Your task to perform on an android device: delete browsing data in the chrome app Image 0: 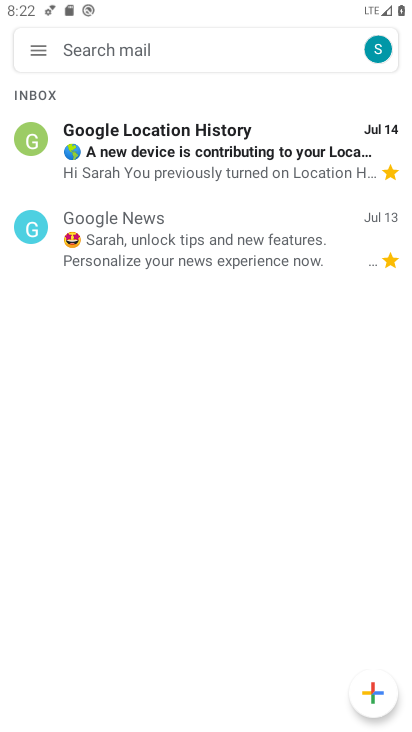
Step 0: press home button
Your task to perform on an android device: delete browsing data in the chrome app Image 1: 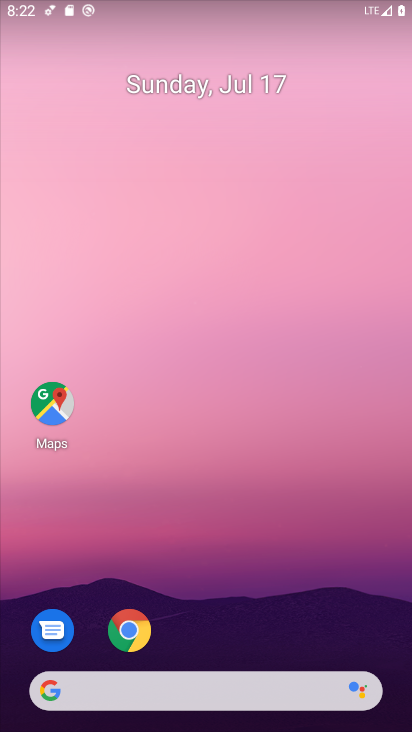
Step 1: drag from (209, 636) to (279, 44)
Your task to perform on an android device: delete browsing data in the chrome app Image 2: 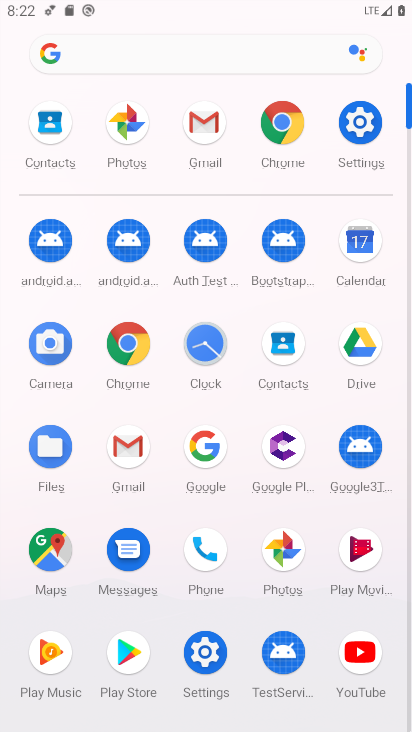
Step 2: click (107, 357)
Your task to perform on an android device: delete browsing data in the chrome app Image 3: 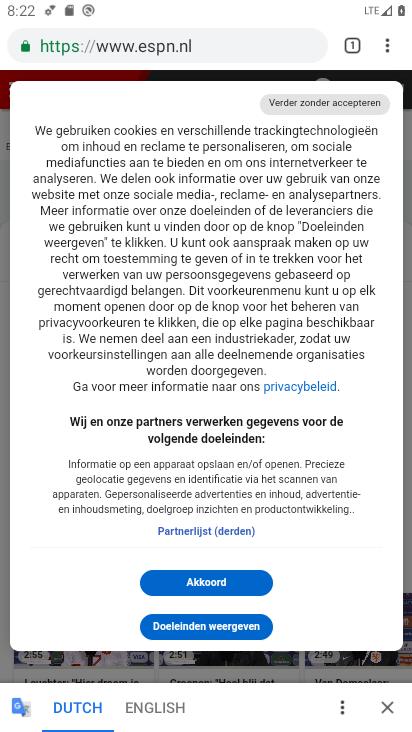
Step 3: click (391, 38)
Your task to perform on an android device: delete browsing data in the chrome app Image 4: 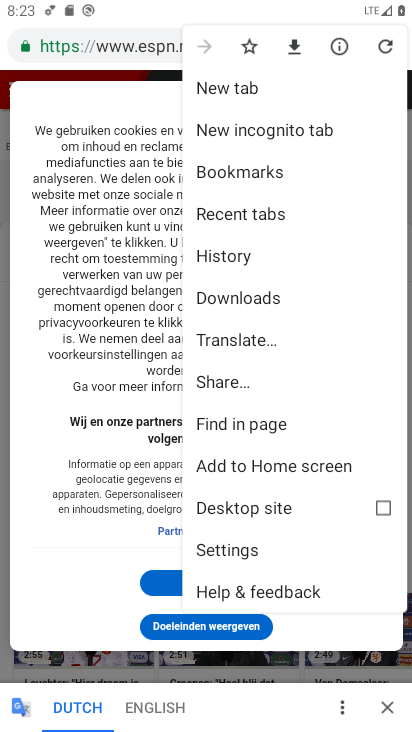
Step 4: click (237, 251)
Your task to perform on an android device: delete browsing data in the chrome app Image 5: 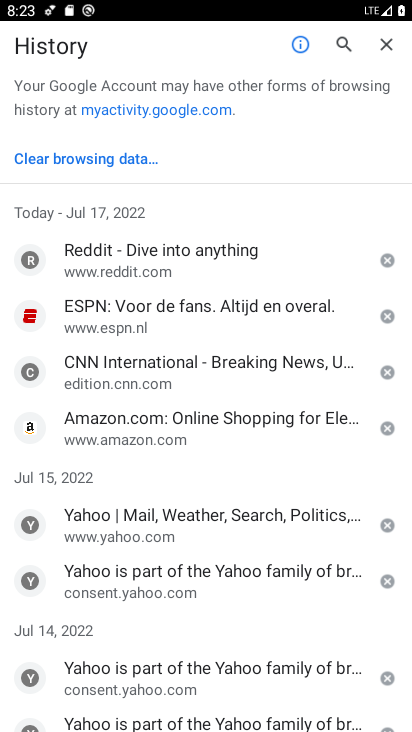
Step 5: click (97, 156)
Your task to perform on an android device: delete browsing data in the chrome app Image 6: 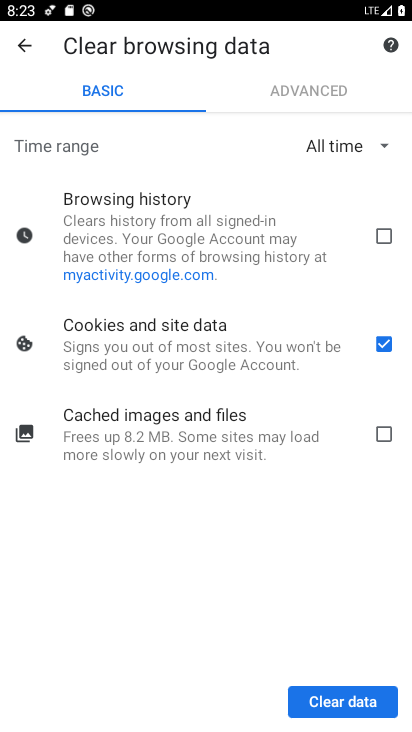
Step 6: click (379, 437)
Your task to perform on an android device: delete browsing data in the chrome app Image 7: 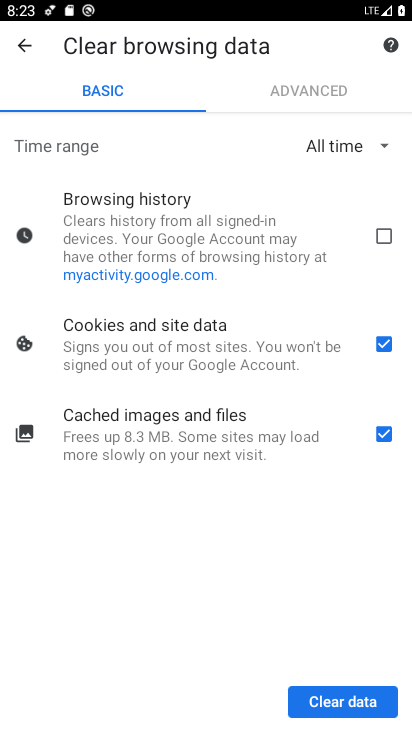
Step 7: click (381, 232)
Your task to perform on an android device: delete browsing data in the chrome app Image 8: 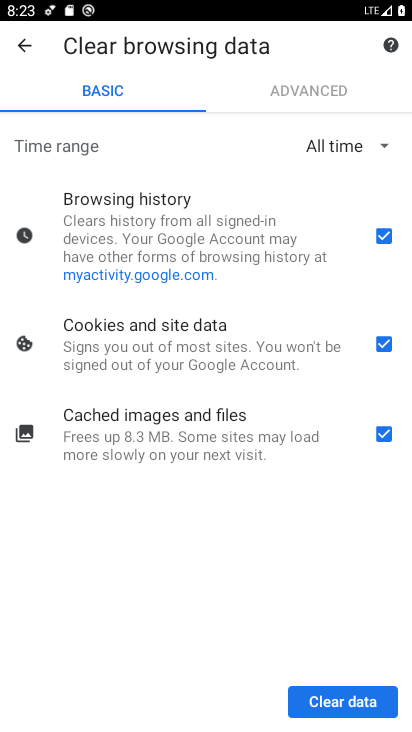
Step 8: click (344, 695)
Your task to perform on an android device: delete browsing data in the chrome app Image 9: 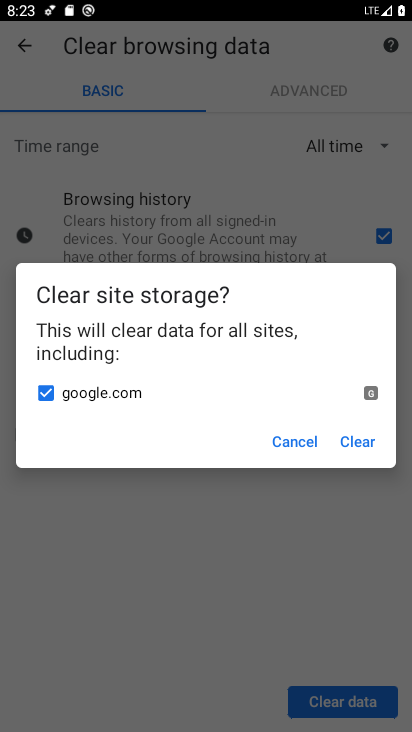
Step 9: click (370, 439)
Your task to perform on an android device: delete browsing data in the chrome app Image 10: 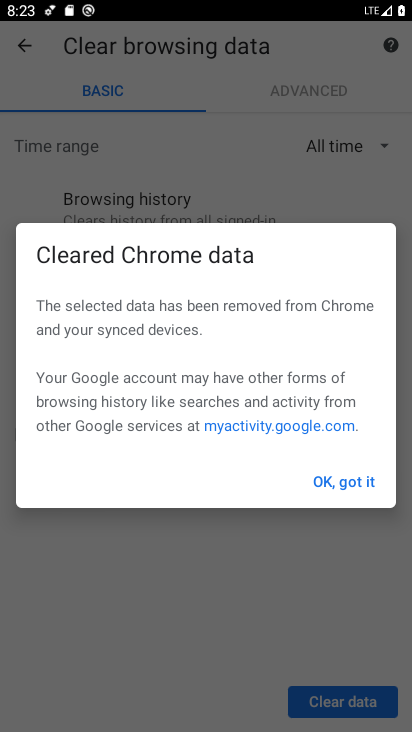
Step 10: click (351, 478)
Your task to perform on an android device: delete browsing data in the chrome app Image 11: 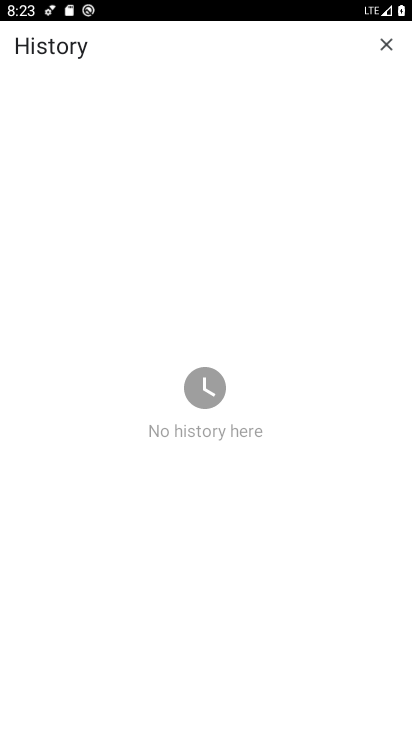
Step 11: task complete